Your task to perform on an android device: delete browsing data in the chrome app Image 0: 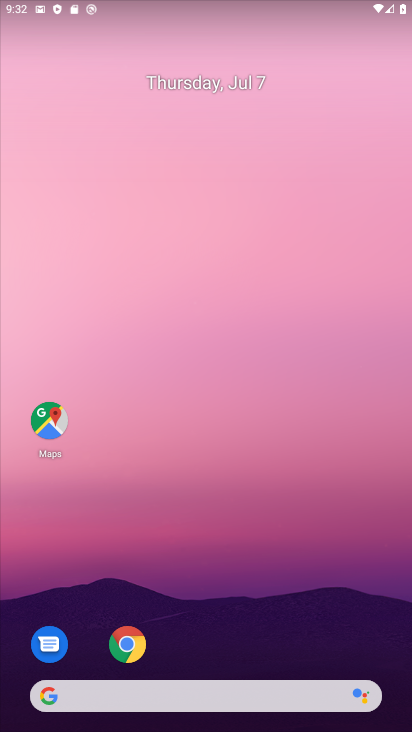
Step 0: click (133, 655)
Your task to perform on an android device: delete browsing data in the chrome app Image 1: 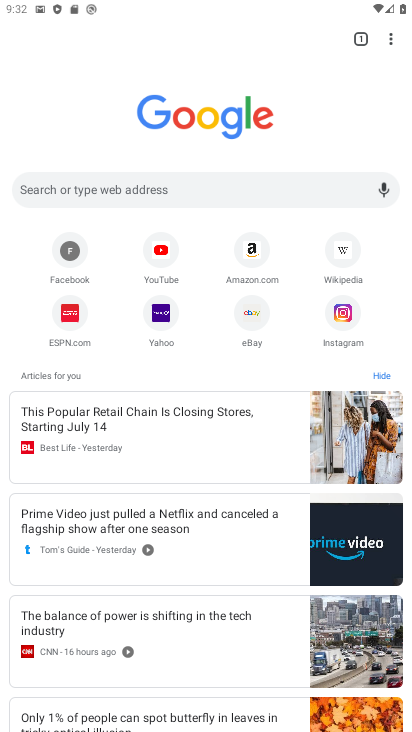
Step 1: click (387, 40)
Your task to perform on an android device: delete browsing data in the chrome app Image 2: 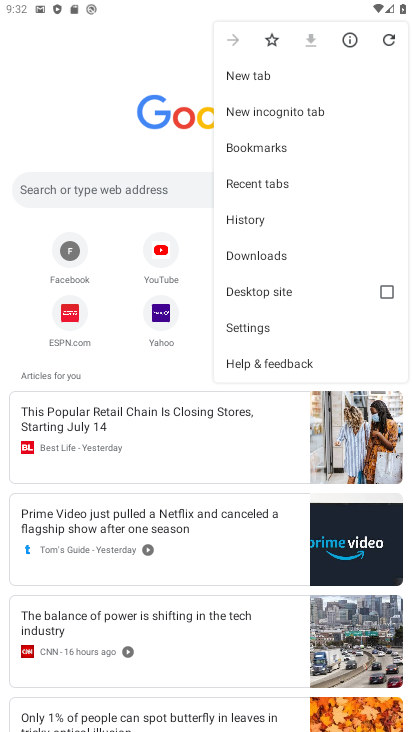
Step 2: click (250, 217)
Your task to perform on an android device: delete browsing data in the chrome app Image 3: 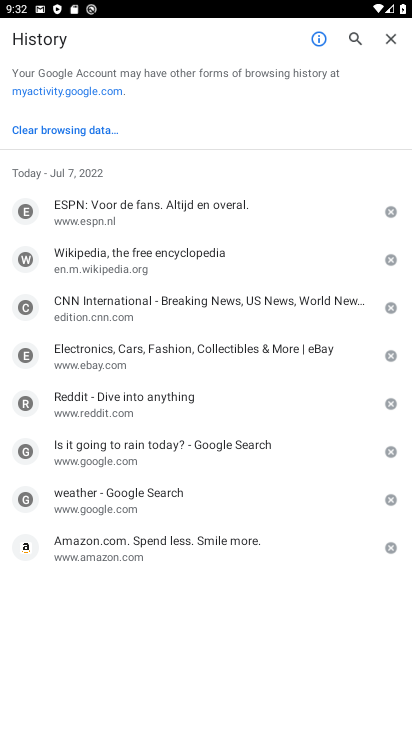
Step 3: click (27, 129)
Your task to perform on an android device: delete browsing data in the chrome app Image 4: 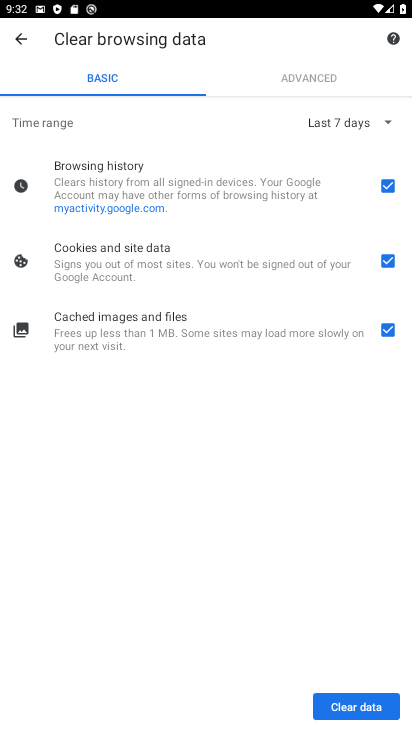
Step 4: click (334, 716)
Your task to perform on an android device: delete browsing data in the chrome app Image 5: 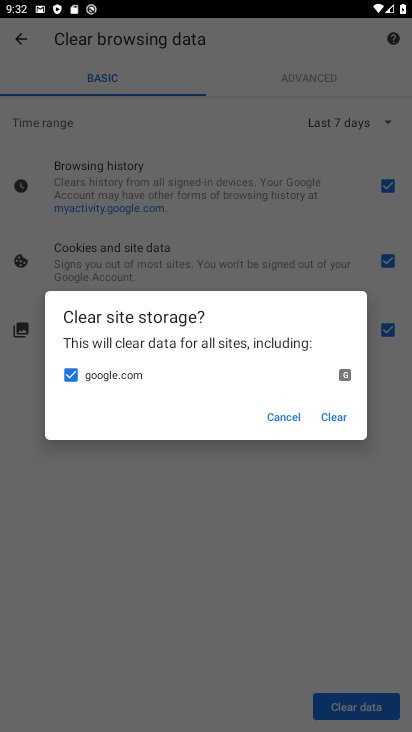
Step 5: click (329, 417)
Your task to perform on an android device: delete browsing data in the chrome app Image 6: 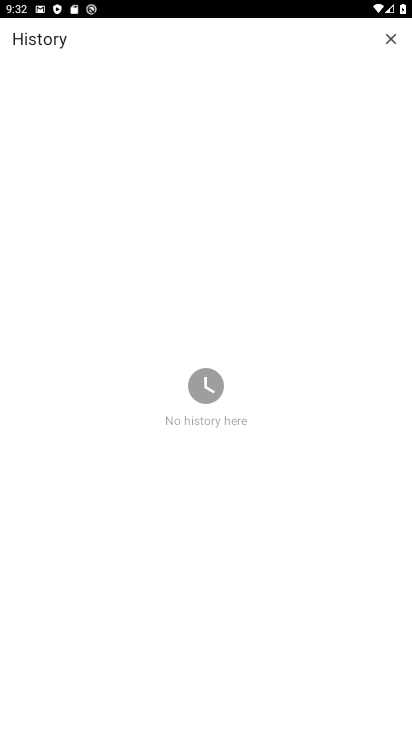
Step 6: task complete